Your task to perform on an android device: toggle javascript in the chrome app Image 0: 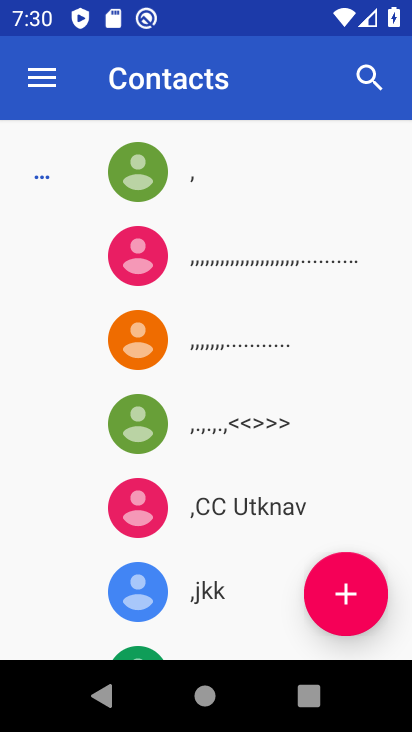
Step 0: press back button
Your task to perform on an android device: toggle javascript in the chrome app Image 1: 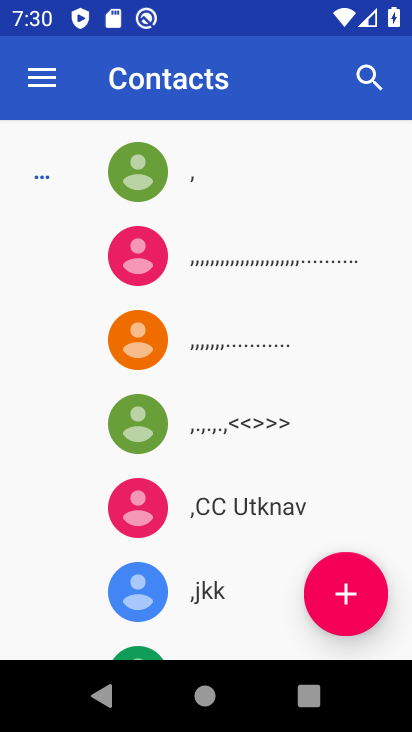
Step 1: press back button
Your task to perform on an android device: toggle javascript in the chrome app Image 2: 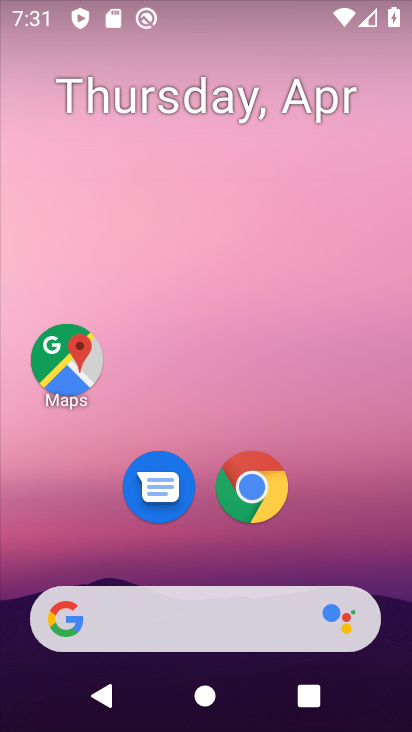
Step 2: drag from (356, 547) to (219, 168)
Your task to perform on an android device: toggle javascript in the chrome app Image 3: 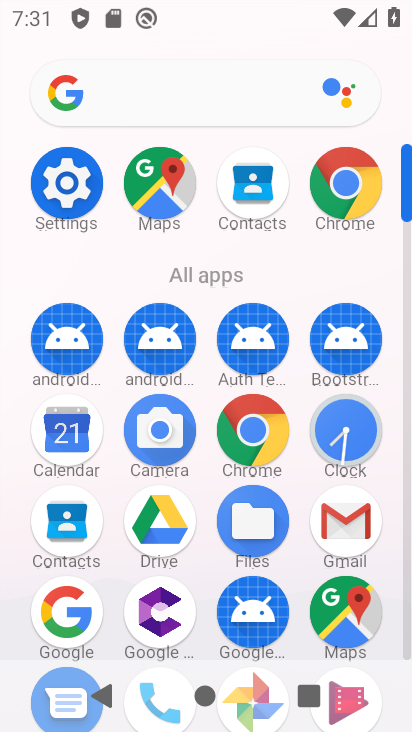
Step 3: click (371, 194)
Your task to perform on an android device: toggle javascript in the chrome app Image 4: 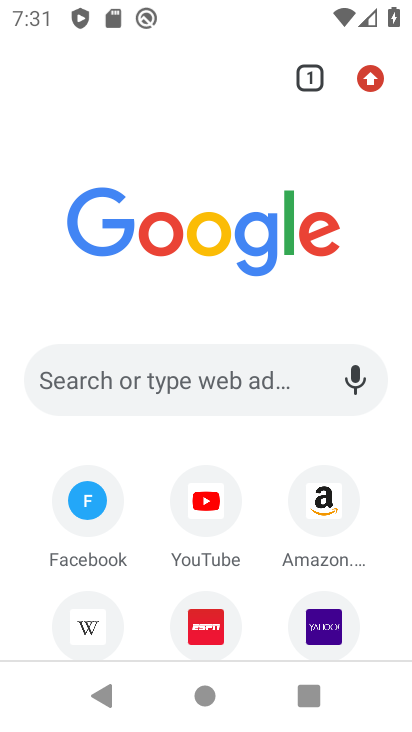
Step 4: click (373, 66)
Your task to perform on an android device: toggle javascript in the chrome app Image 5: 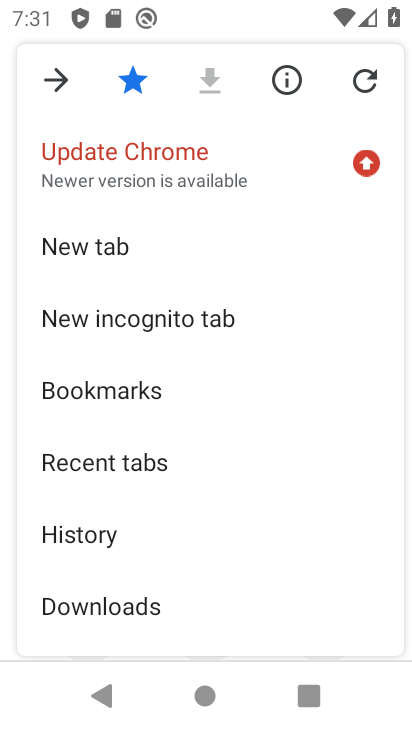
Step 5: drag from (175, 559) to (177, 282)
Your task to perform on an android device: toggle javascript in the chrome app Image 6: 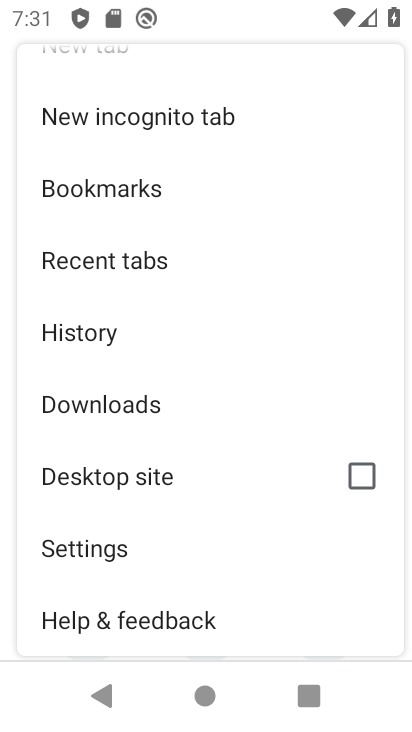
Step 6: click (121, 565)
Your task to perform on an android device: toggle javascript in the chrome app Image 7: 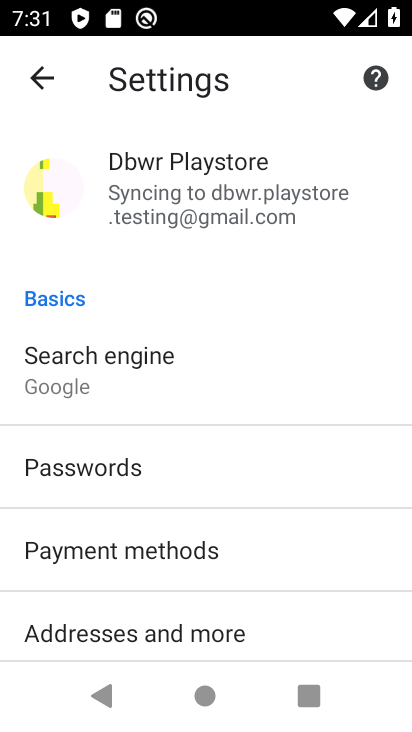
Step 7: drag from (158, 570) to (146, 249)
Your task to perform on an android device: toggle javascript in the chrome app Image 8: 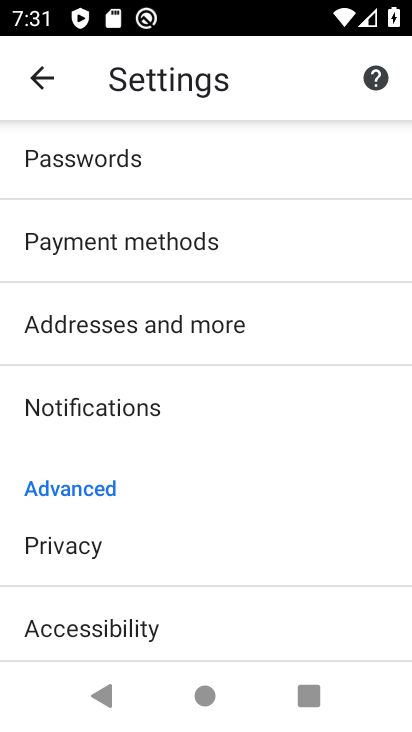
Step 8: drag from (160, 560) to (169, 285)
Your task to perform on an android device: toggle javascript in the chrome app Image 9: 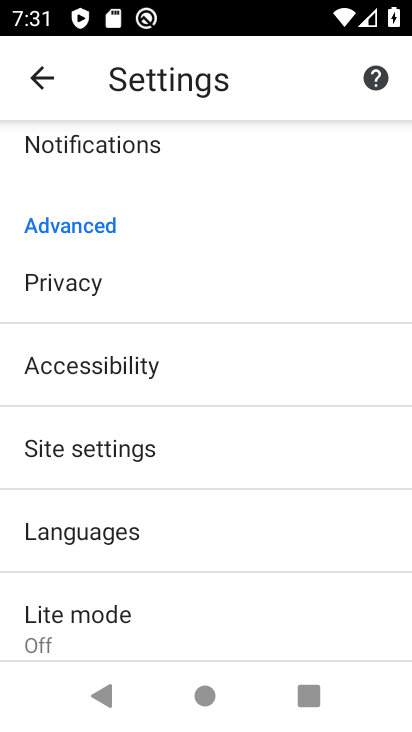
Step 9: click (236, 467)
Your task to perform on an android device: toggle javascript in the chrome app Image 10: 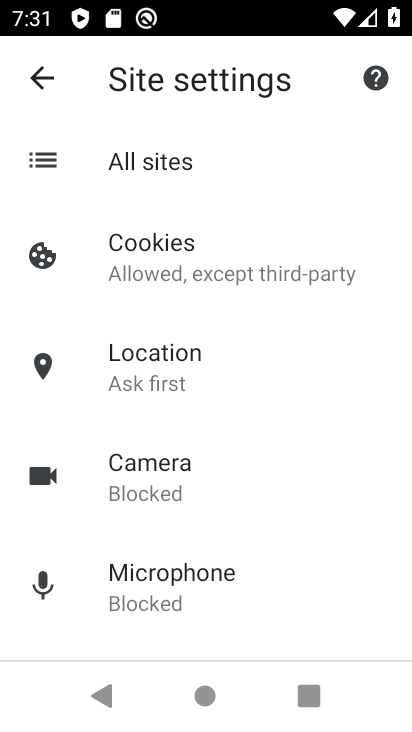
Step 10: drag from (224, 561) to (206, 253)
Your task to perform on an android device: toggle javascript in the chrome app Image 11: 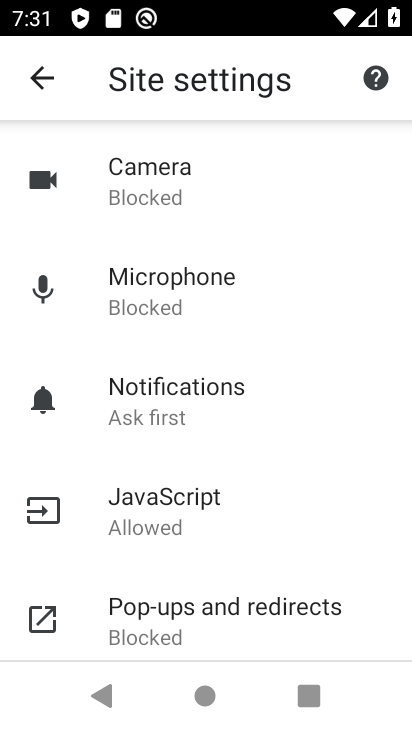
Step 11: click (200, 504)
Your task to perform on an android device: toggle javascript in the chrome app Image 12: 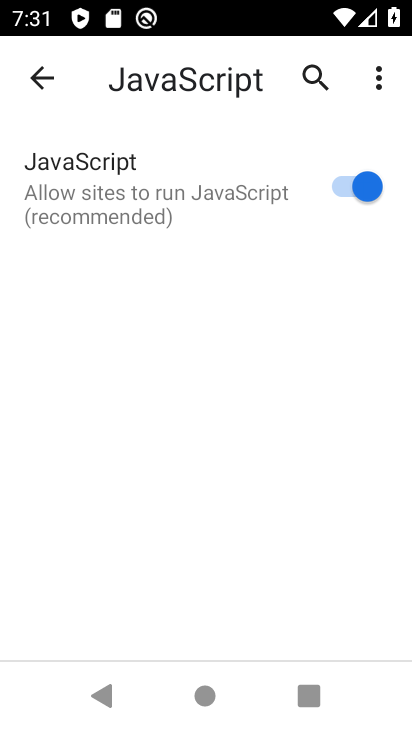
Step 12: click (357, 165)
Your task to perform on an android device: toggle javascript in the chrome app Image 13: 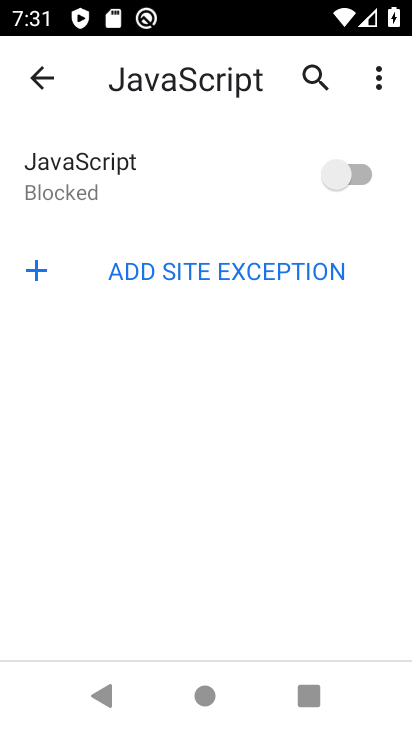
Step 13: task complete